Your task to perform on an android device: install app "Indeed Job Search" Image 0: 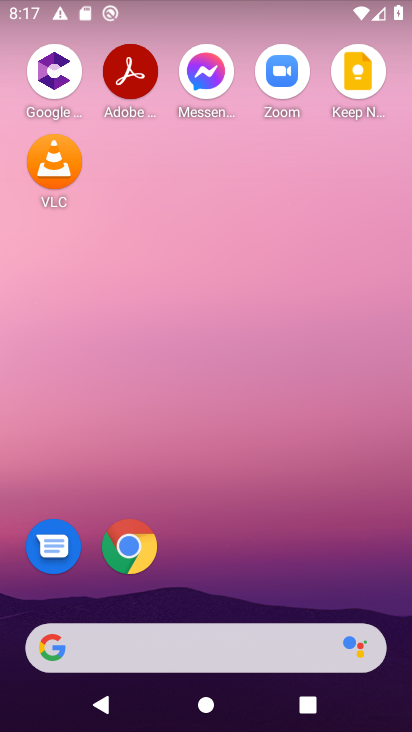
Step 0: press home button
Your task to perform on an android device: install app "Indeed Job Search" Image 1: 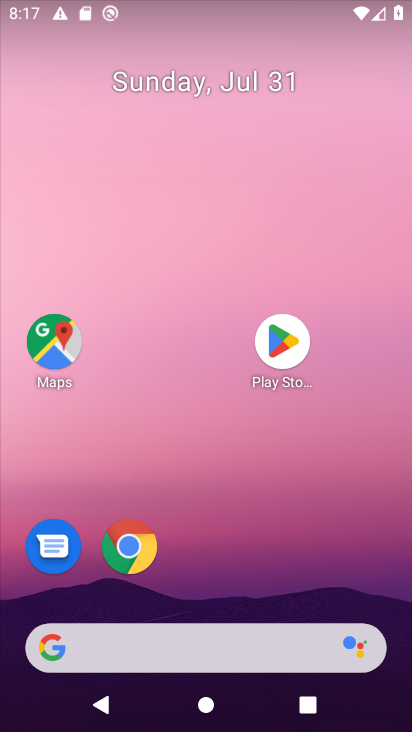
Step 1: click (284, 346)
Your task to perform on an android device: install app "Indeed Job Search" Image 2: 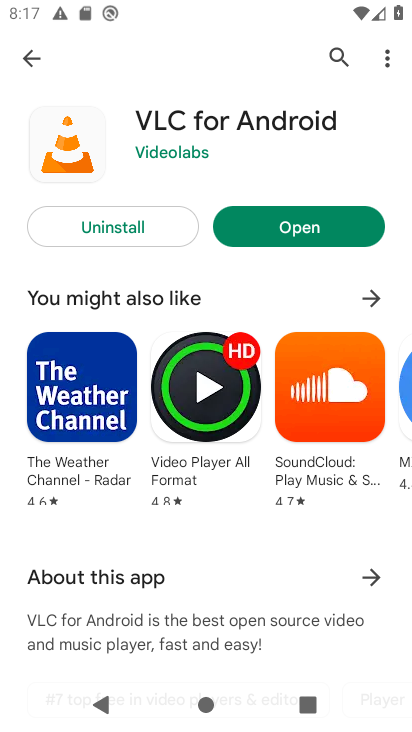
Step 2: click (330, 51)
Your task to perform on an android device: install app "Indeed Job Search" Image 3: 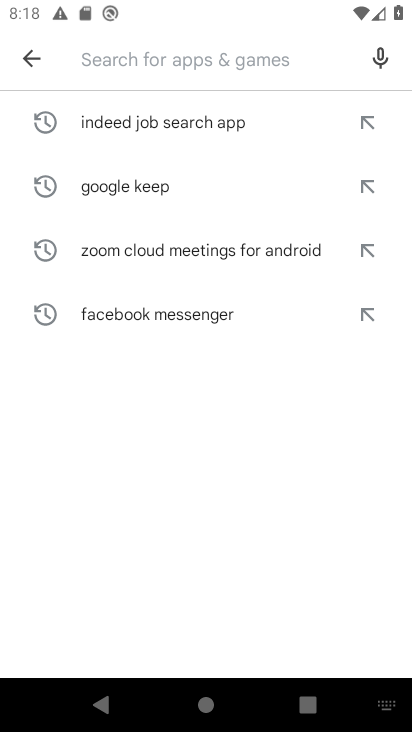
Step 3: type "Indeed Job Search"
Your task to perform on an android device: install app "Indeed Job Search" Image 4: 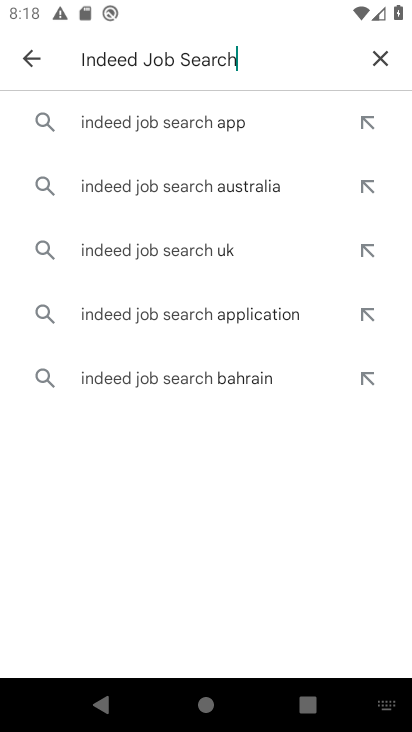
Step 4: click (203, 118)
Your task to perform on an android device: install app "Indeed Job Search" Image 5: 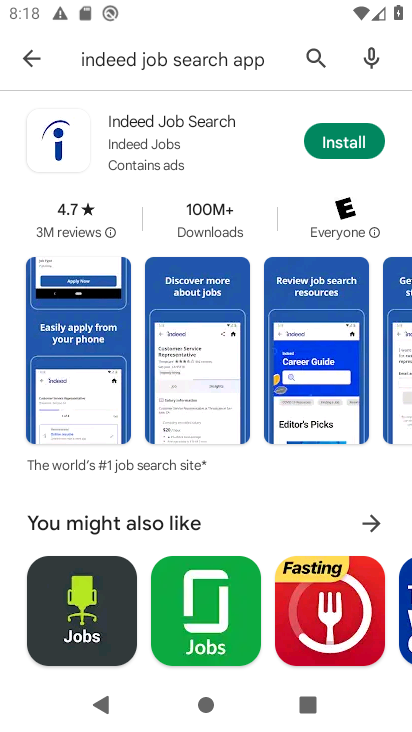
Step 5: click (351, 142)
Your task to perform on an android device: install app "Indeed Job Search" Image 6: 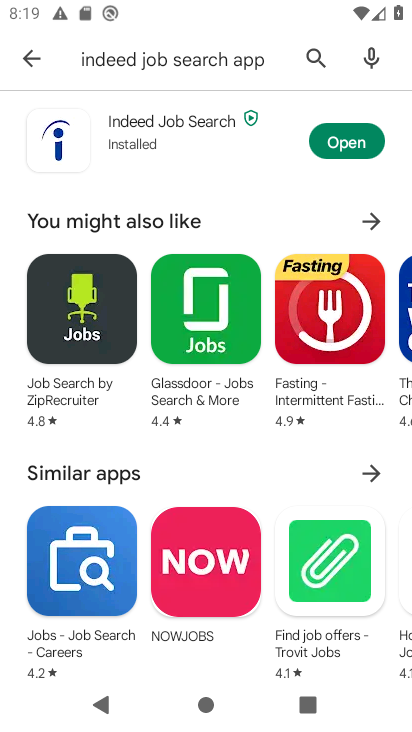
Step 6: task complete